Your task to perform on an android device: Play the new Justin Bieber video on YouTube Image 0: 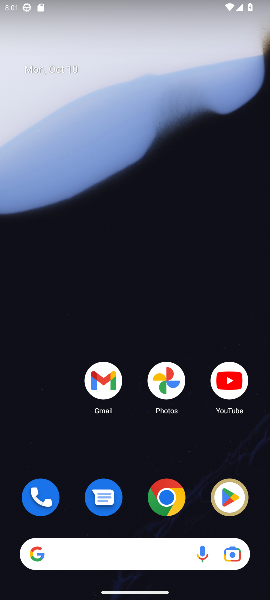
Step 0: drag from (164, 438) to (171, 73)
Your task to perform on an android device: Play the new Justin Bieber video on YouTube Image 1: 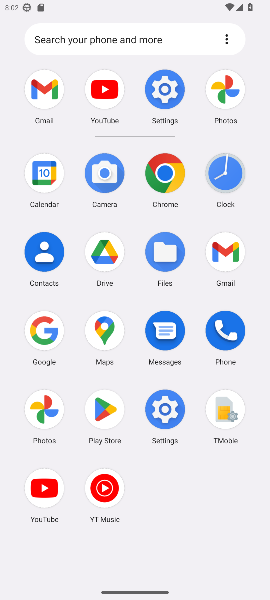
Step 1: click (45, 486)
Your task to perform on an android device: Play the new Justin Bieber video on YouTube Image 2: 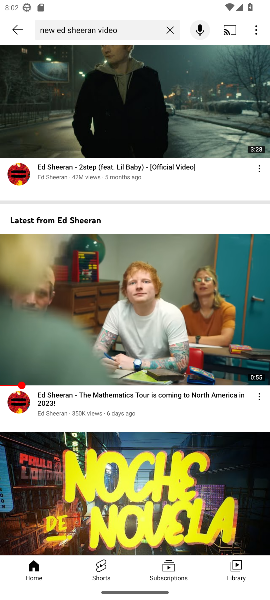
Step 2: click (168, 29)
Your task to perform on an android device: Play the new Justin Bieber video on YouTube Image 3: 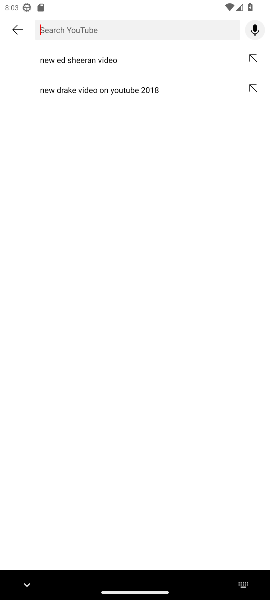
Step 3: click (161, 22)
Your task to perform on an android device: Play the new Justin Bieber video on YouTube Image 4: 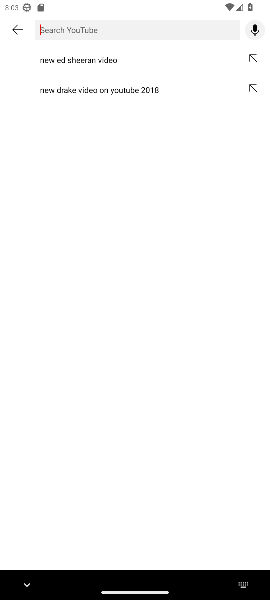
Step 4: type "he new Justin Bieber video "
Your task to perform on an android device: Play the new Justin Bieber video on YouTube Image 5: 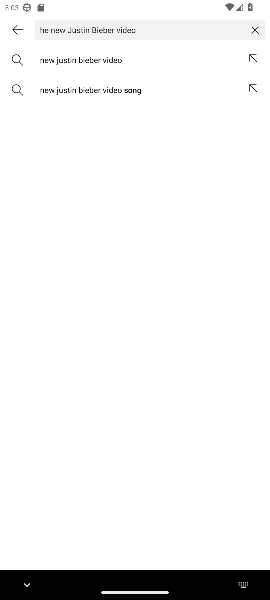
Step 5: click (118, 57)
Your task to perform on an android device: Play the new Justin Bieber video on YouTube Image 6: 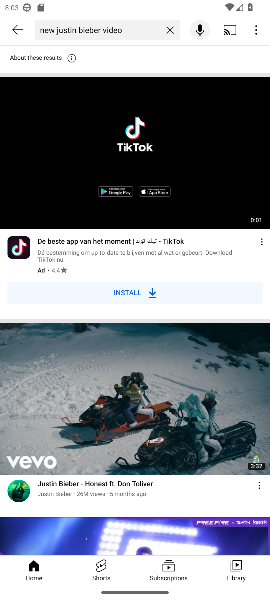
Step 6: drag from (155, 416) to (159, 121)
Your task to perform on an android device: Play the new Justin Bieber video on YouTube Image 7: 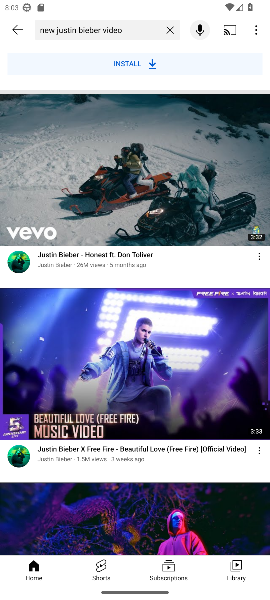
Step 7: drag from (155, 509) to (155, 365)
Your task to perform on an android device: Play the new Justin Bieber video on YouTube Image 8: 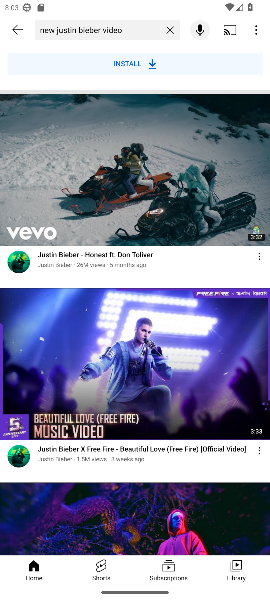
Step 8: click (150, 235)
Your task to perform on an android device: Play the new Justin Bieber video on YouTube Image 9: 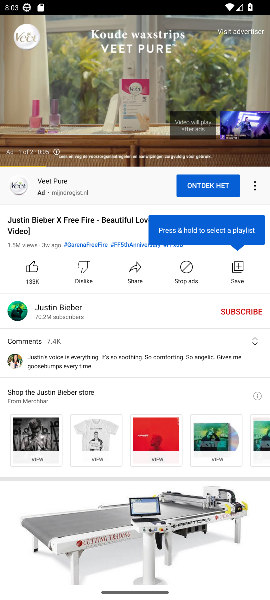
Step 9: click (127, 88)
Your task to perform on an android device: Play the new Justin Bieber video on YouTube Image 10: 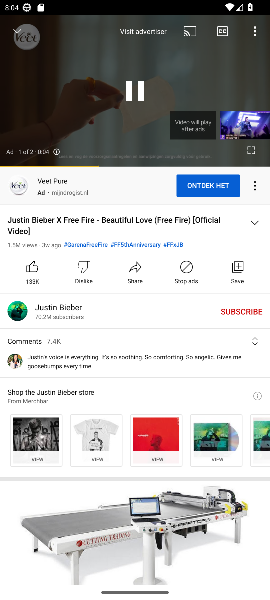
Step 10: click (127, 85)
Your task to perform on an android device: Play the new Justin Bieber video on YouTube Image 11: 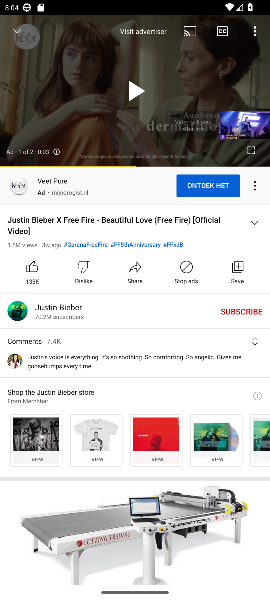
Step 11: task complete